Your task to perform on an android device: turn on bluetooth scan Image 0: 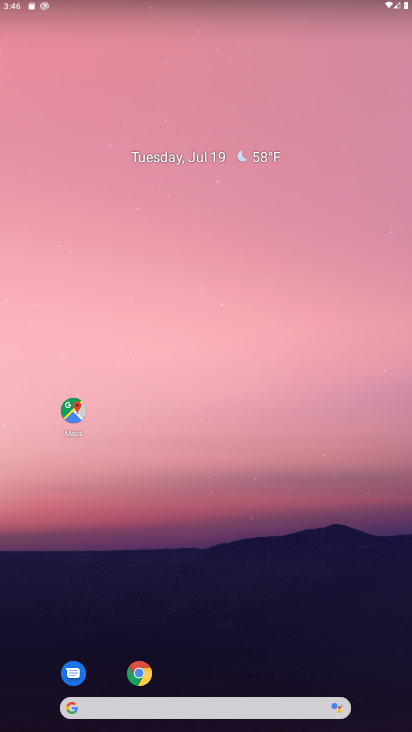
Step 0: drag from (254, 700) to (245, 65)
Your task to perform on an android device: turn on bluetooth scan Image 1: 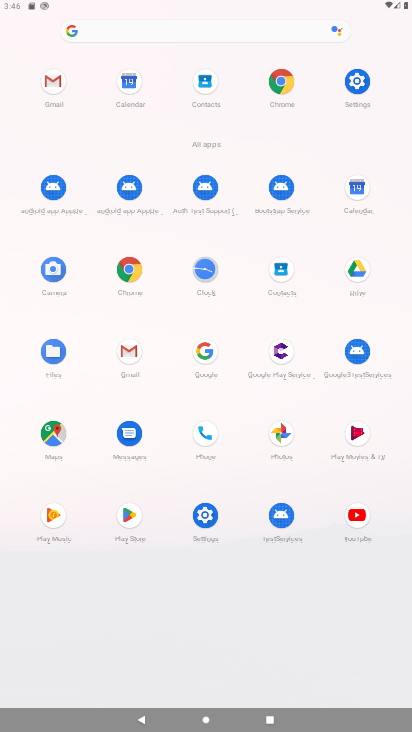
Step 1: click (357, 92)
Your task to perform on an android device: turn on bluetooth scan Image 2: 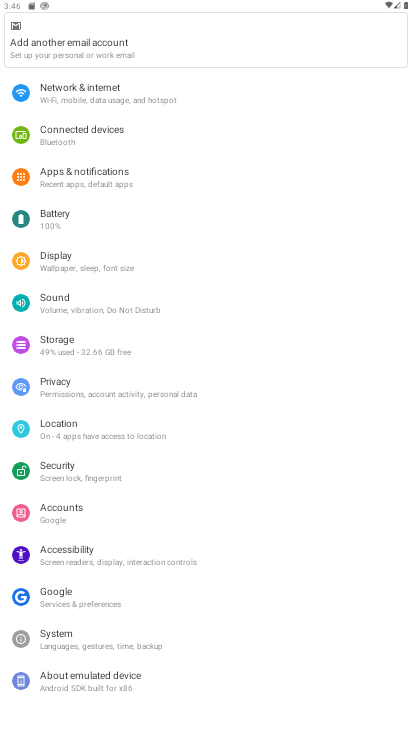
Step 2: click (84, 173)
Your task to perform on an android device: turn on bluetooth scan Image 3: 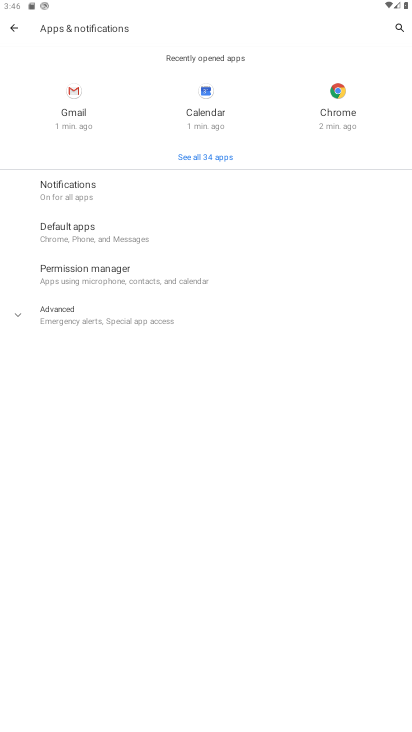
Step 3: press back button
Your task to perform on an android device: turn on bluetooth scan Image 4: 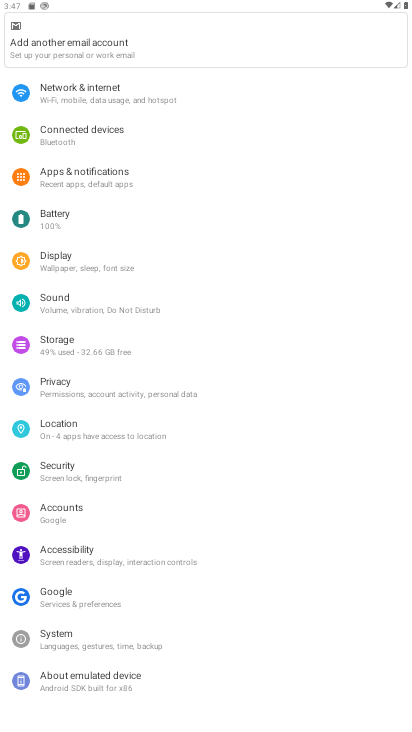
Step 4: click (122, 433)
Your task to perform on an android device: turn on bluetooth scan Image 5: 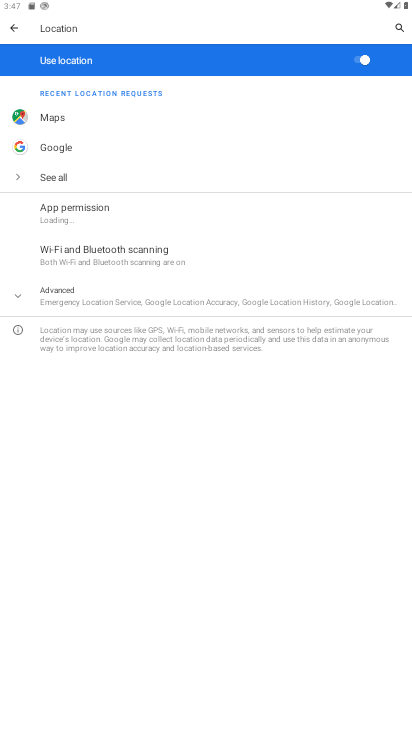
Step 5: click (149, 257)
Your task to perform on an android device: turn on bluetooth scan Image 6: 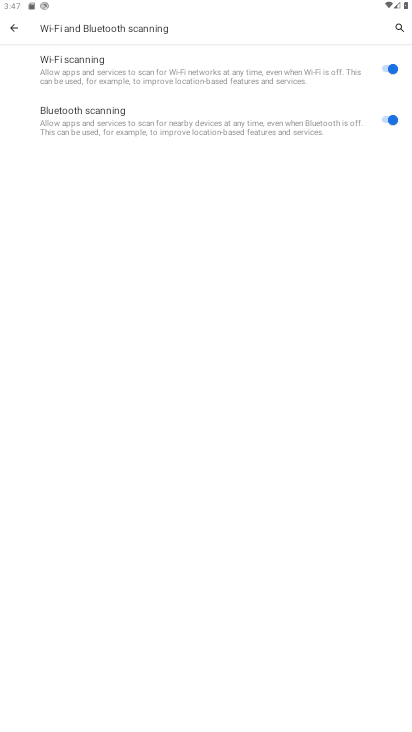
Step 6: task complete